Your task to perform on an android device: Clear all items from cart on bestbuy. Image 0: 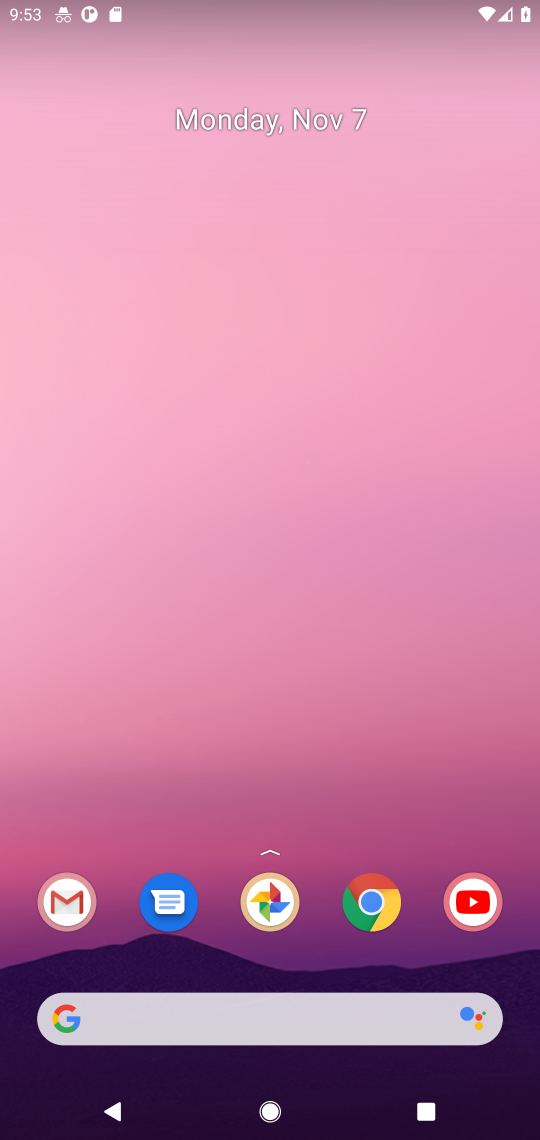
Step 0: click (377, 910)
Your task to perform on an android device: Clear all items from cart on bestbuy. Image 1: 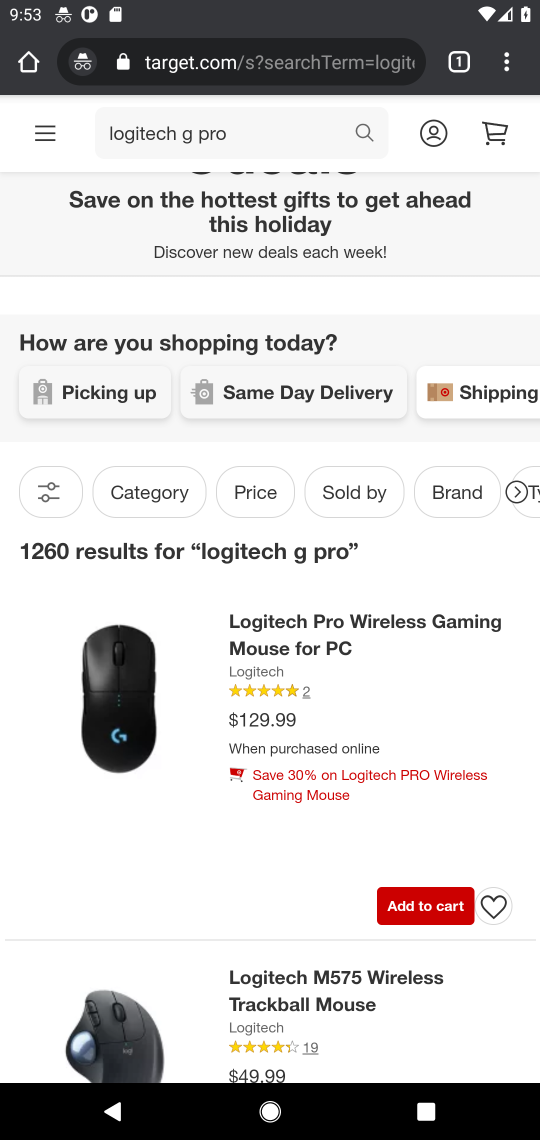
Step 1: click (298, 73)
Your task to perform on an android device: Clear all items from cart on bestbuy. Image 2: 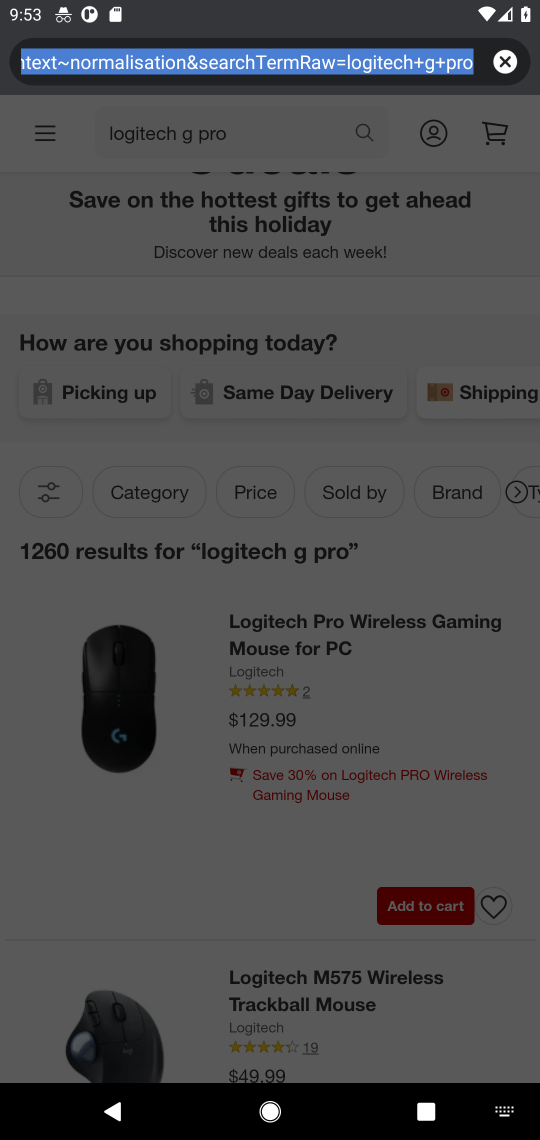
Step 2: type "bestbuy.com"
Your task to perform on an android device: Clear all items from cart on bestbuy. Image 3: 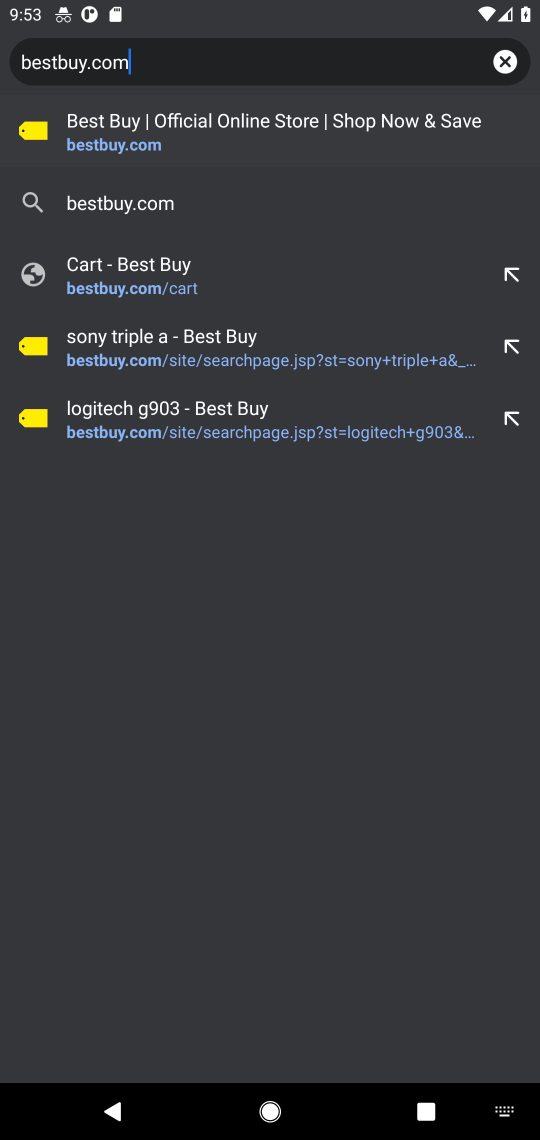
Step 3: click (146, 166)
Your task to perform on an android device: Clear all items from cart on bestbuy. Image 4: 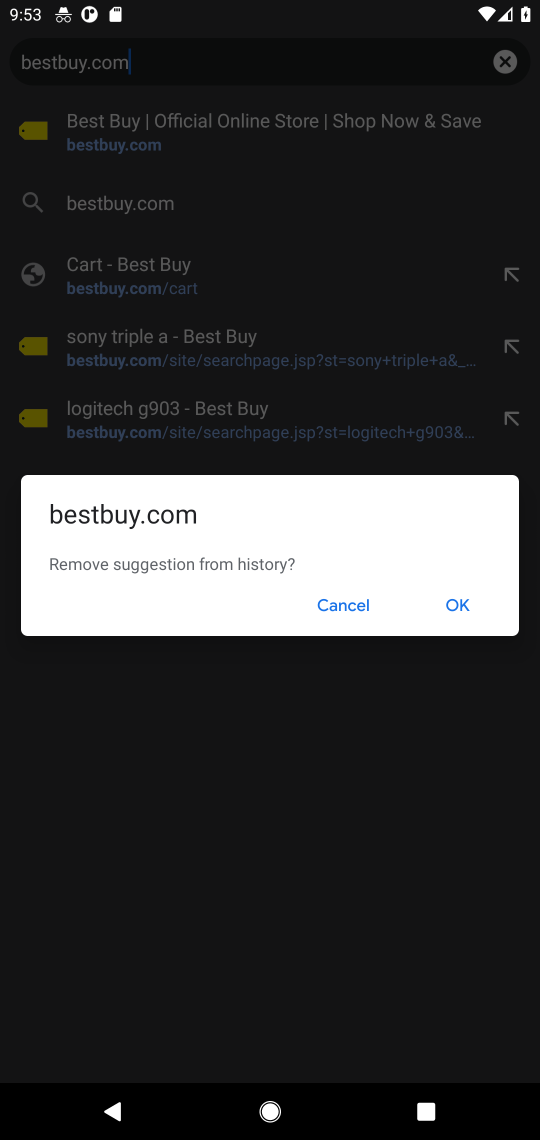
Step 4: click (345, 613)
Your task to perform on an android device: Clear all items from cart on bestbuy. Image 5: 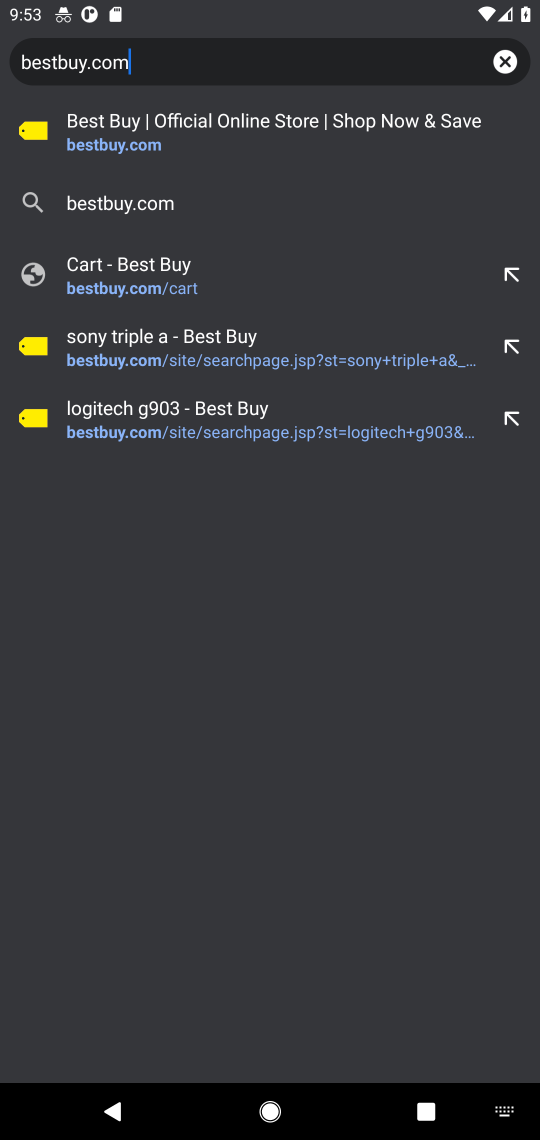
Step 5: click (134, 159)
Your task to perform on an android device: Clear all items from cart on bestbuy. Image 6: 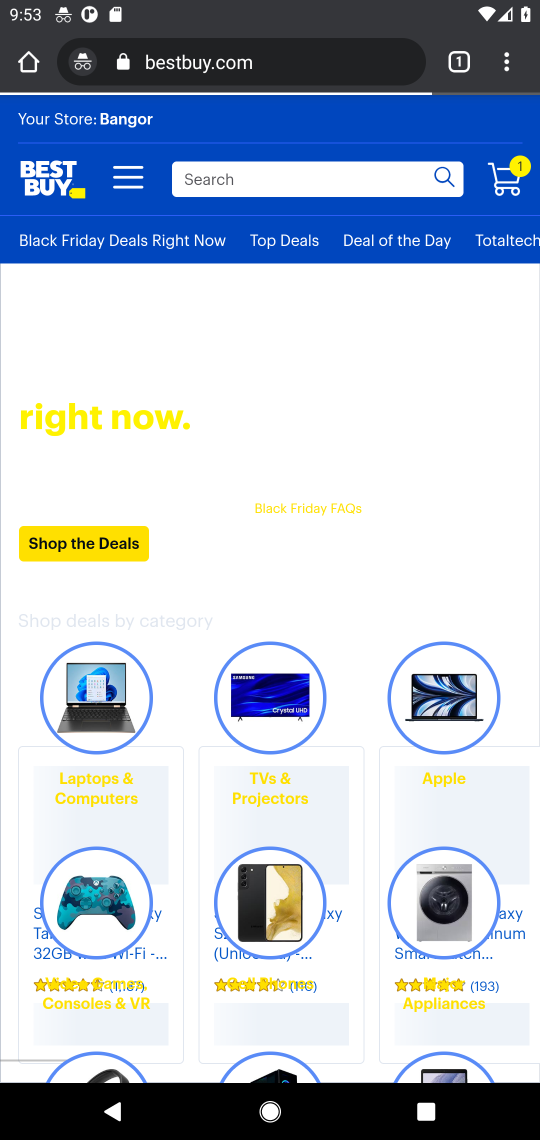
Step 6: click (510, 182)
Your task to perform on an android device: Clear all items from cart on bestbuy. Image 7: 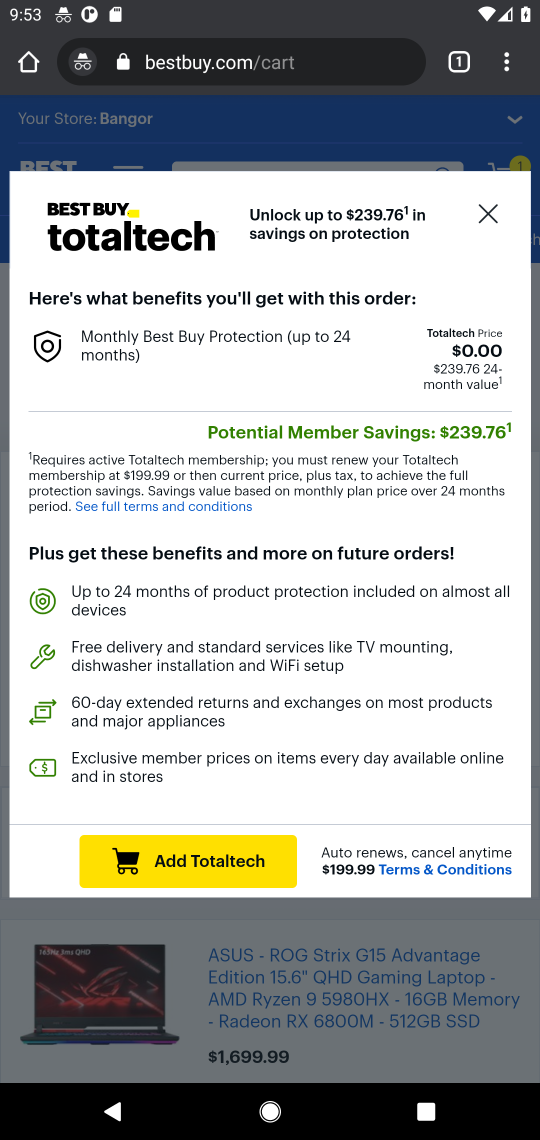
Step 7: click (492, 221)
Your task to perform on an android device: Clear all items from cart on bestbuy. Image 8: 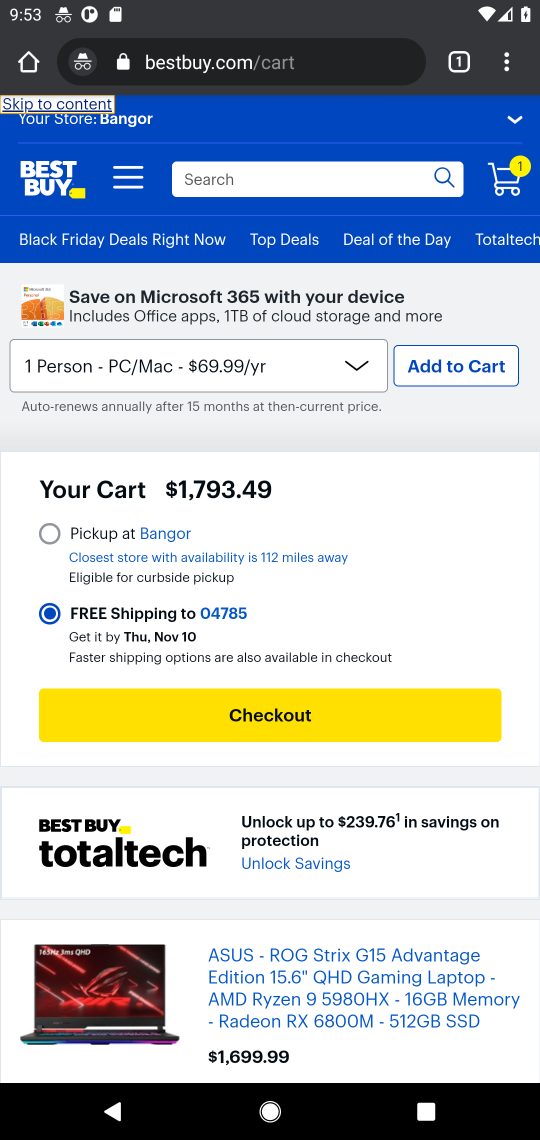
Step 8: drag from (262, 612) to (299, 284)
Your task to perform on an android device: Clear all items from cart on bestbuy. Image 9: 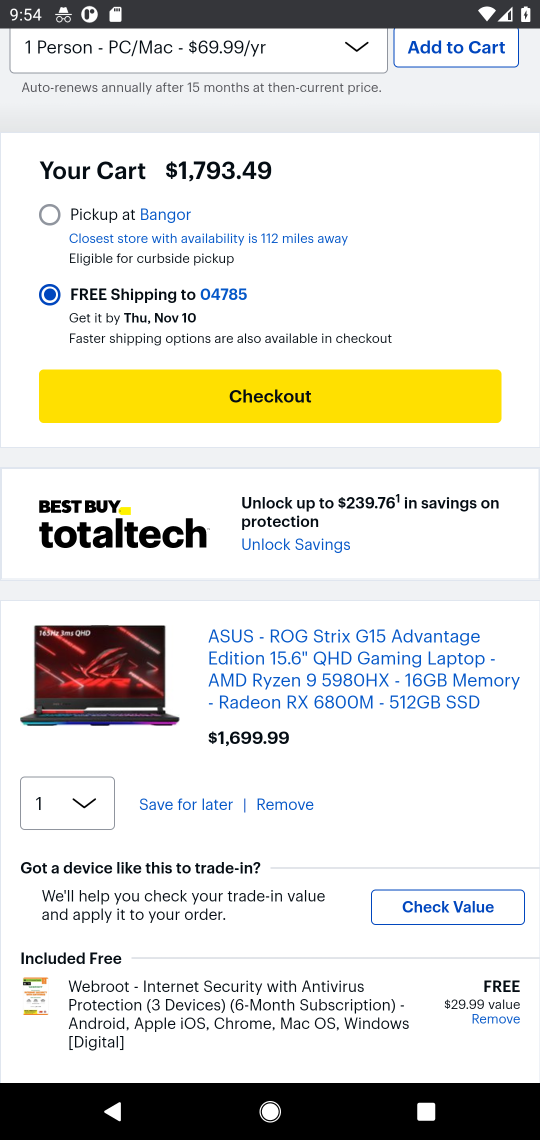
Step 9: click (299, 808)
Your task to perform on an android device: Clear all items from cart on bestbuy. Image 10: 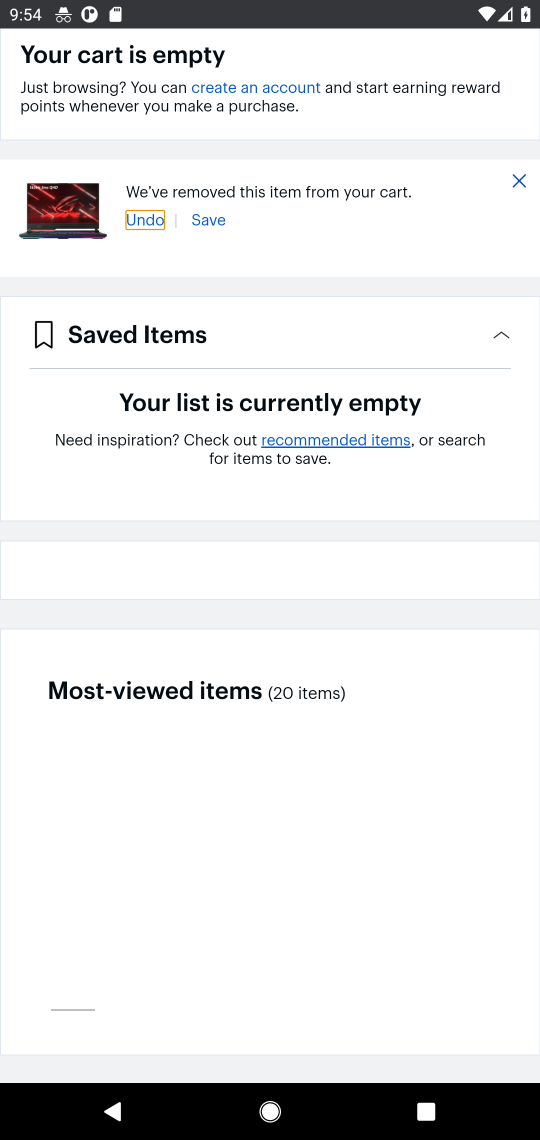
Step 10: task complete